Your task to perform on an android device: What's on my calendar tomorrow? Image 0: 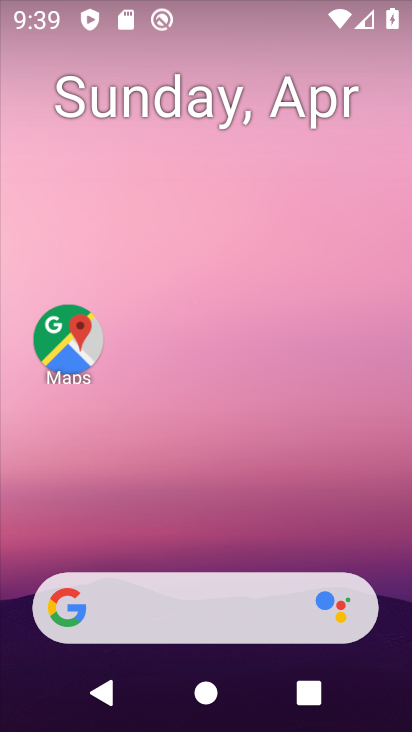
Step 0: drag from (228, 723) to (192, 2)
Your task to perform on an android device: What's on my calendar tomorrow? Image 1: 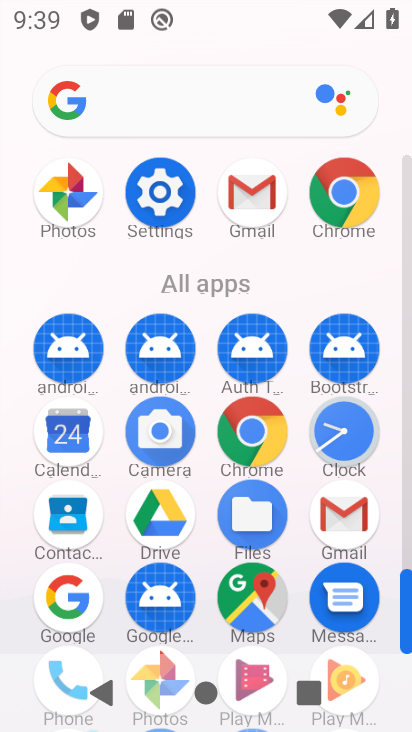
Step 1: click (62, 432)
Your task to perform on an android device: What's on my calendar tomorrow? Image 2: 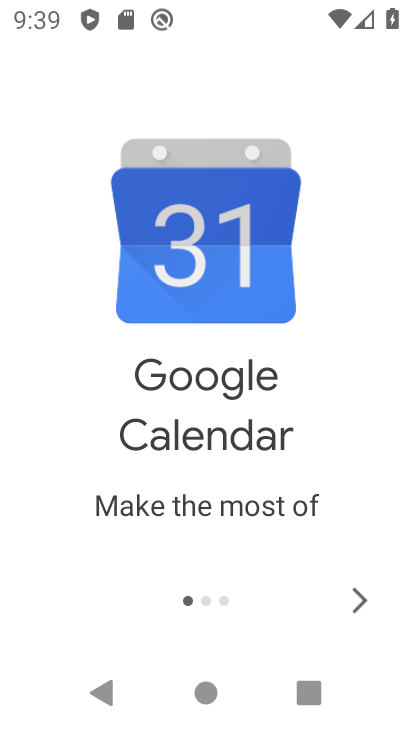
Step 2: click (356, 591)
Your task to perform on an android device: What's on my calendar tomorrow? Image 3: 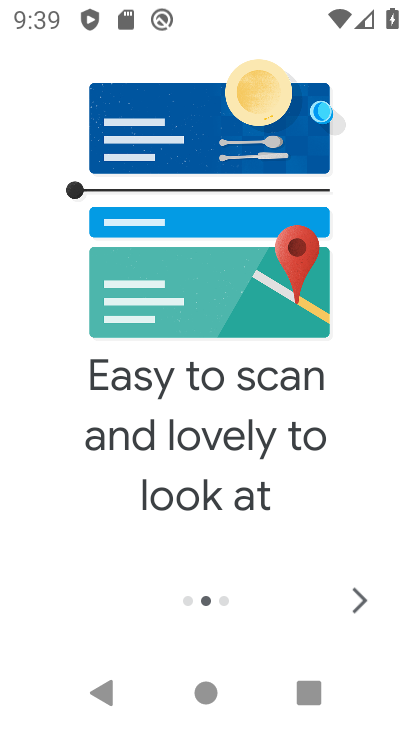
Step 3: click (354, 592)
Your task to perform on an android device: What's on my calendar tomorrow? Image 4: 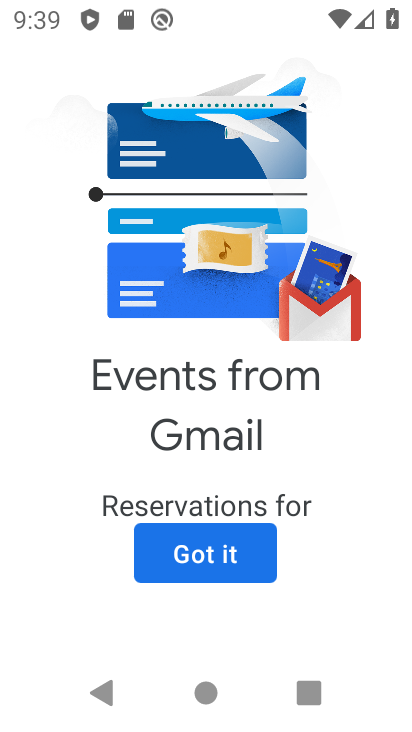
Step 4: click (222, 559)
Your task to perform on an android device: What's on my calendar tomorrow? Image 5: 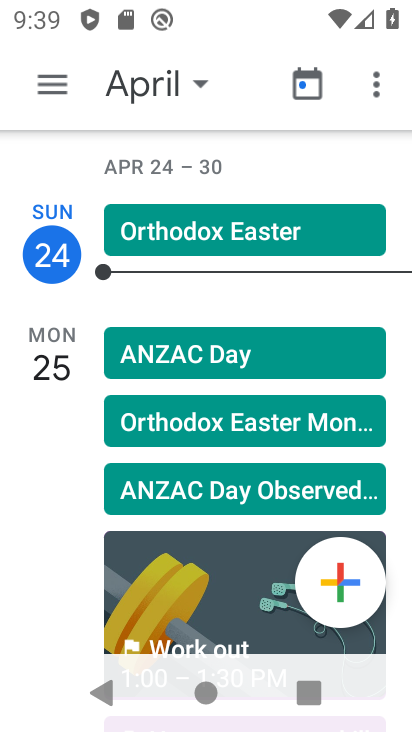
Step 5: click (147, 89)
Your task to perform on an android device: What's on my calendar tomorrow? Image 6: 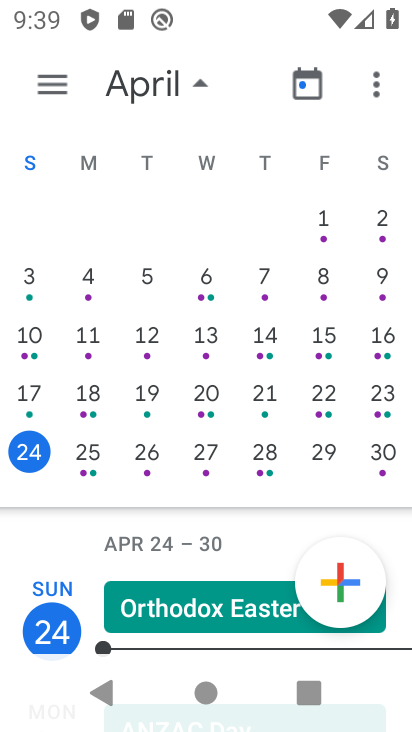
Step 6: click (80, 453)
Your task to perform on an android device: What's on my calendar tomorrow? Image 7: 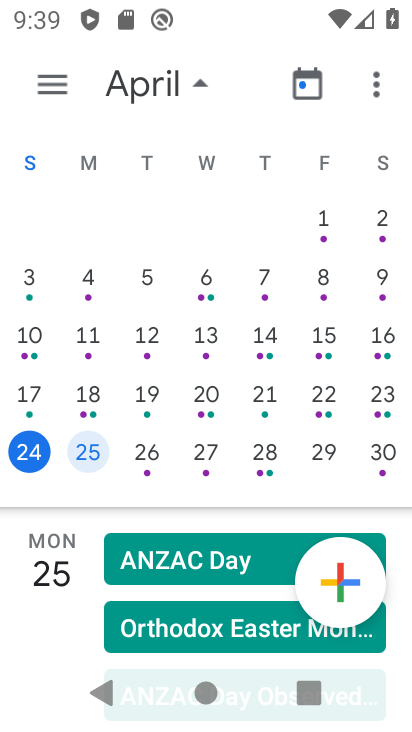
Step 7: click (80, 453)
Your task to perform on an android device: What's on my calendar tomorrow? Image 8: 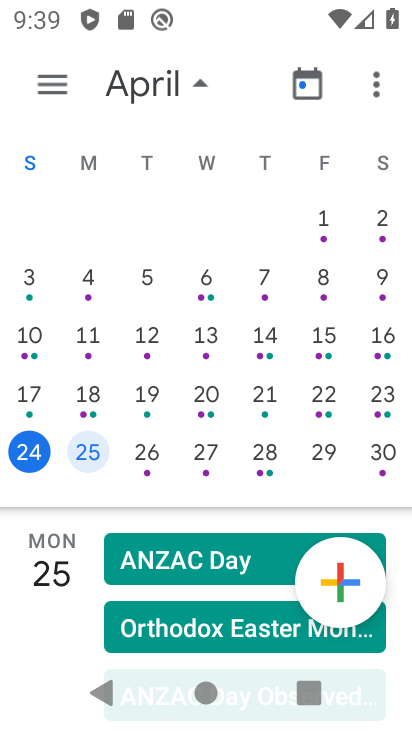
Step 8: click (87, 450)
Your task to perform on an android device: What's on my calendar tomorrow? Image 9: 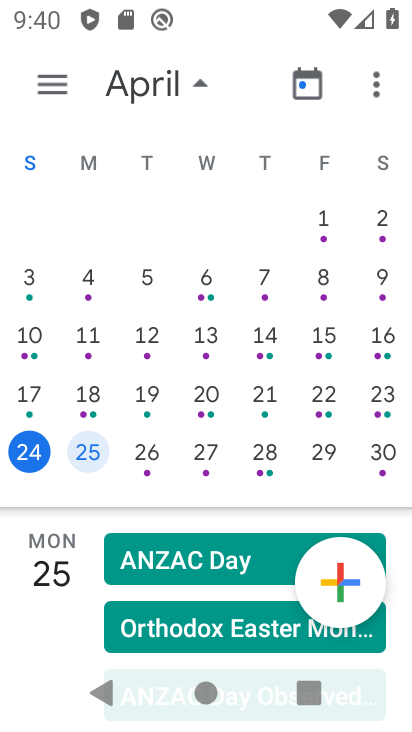
Step 9: task complete